Your task to perform on an android device: turn vacation reply on in the gmail app Image 0: 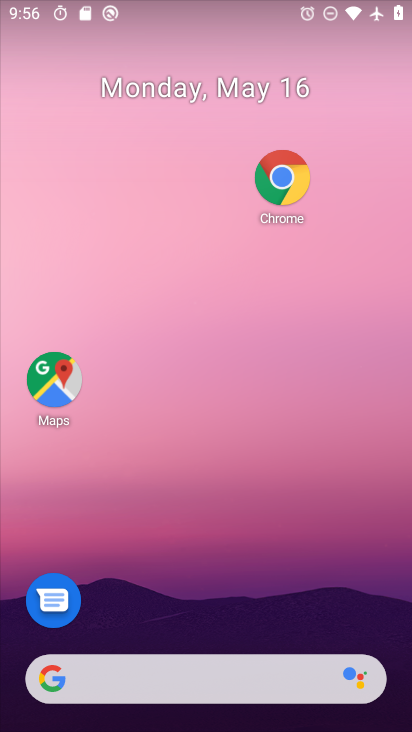
Step 0: drag from (219, 618) to (310, 215)
Your task to perform on an android device: turn vacation reply on in the gmail app Image 1: 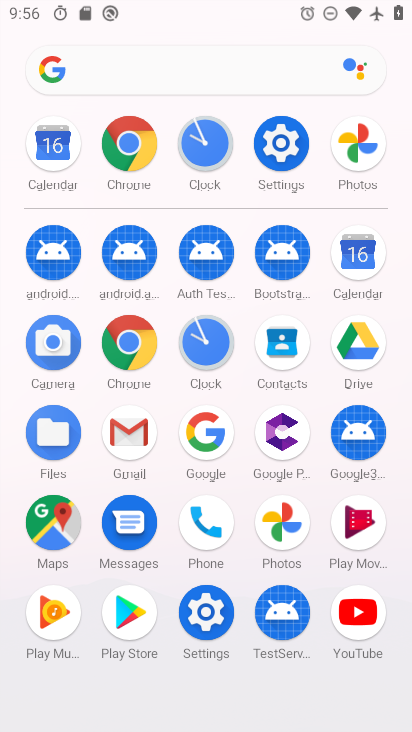
Step 1: click (131, 440)
Your task to perform on an android device: turn vacation reply on in the gmail app Image 2: 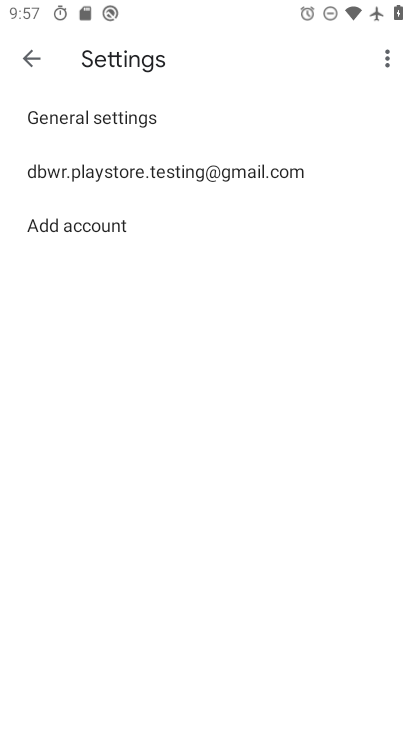
Step 2: click (267, 170)
Your task to perform on an android device: turn vacation reply on in the gmail app Image 3: 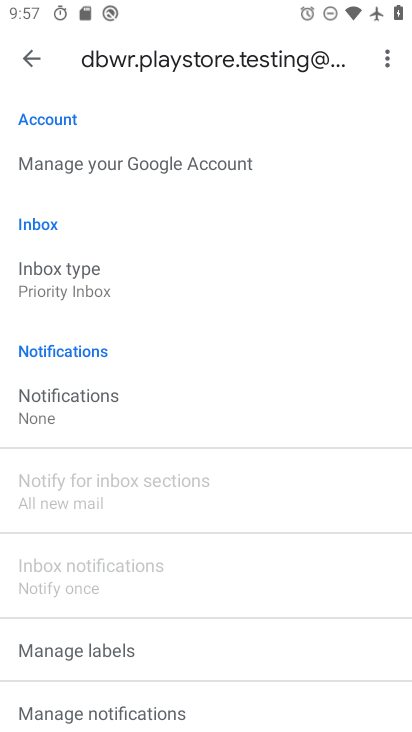
Step 3: drag from (246, 366) to (294, 158)
Your task to perform on an android device: turn vacation reply on in the gmail app Image 4: 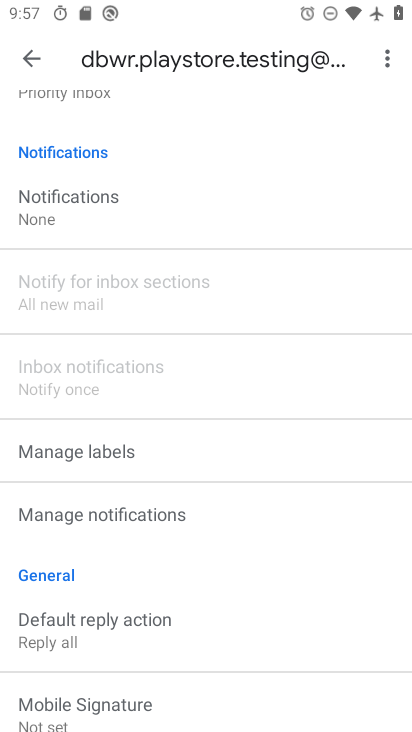
Step 4: drag from (203, 613) to (367, 128)
Your task to perform on an android device: turn vacation reply on in the gmail app Image 5: 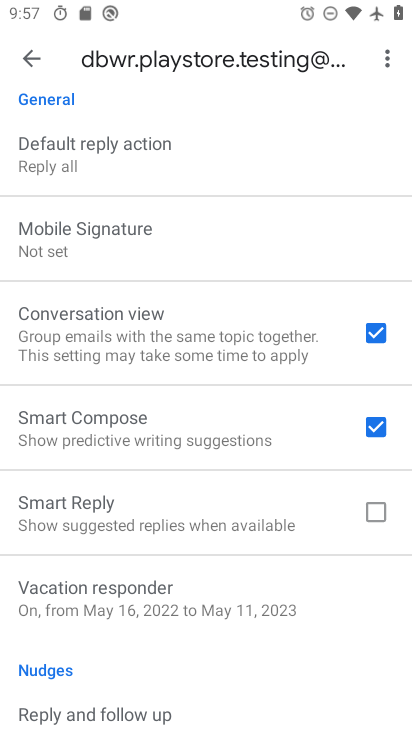
Step 5: click (144, 597)
Your task to perform on an android device: turn vacation reply on in the gmail app Image 6: 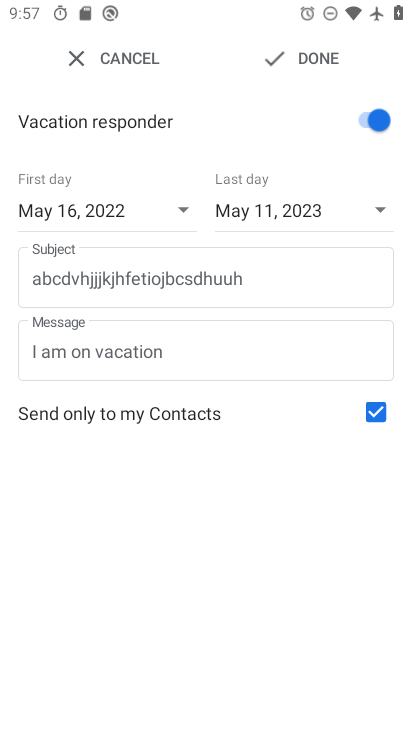
Step 6: task complete